Your task to perform on an android device: Do I have any events tomorrow? Image 0: 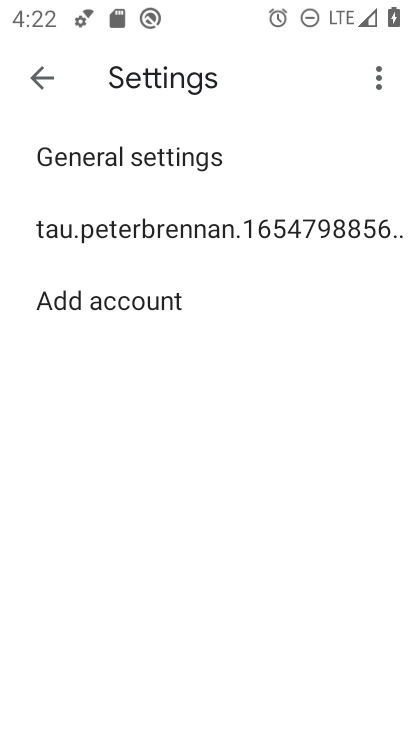
Step 0: press back button
Your task to perform on an android device: Do I have any events tomorrow? Image 1: 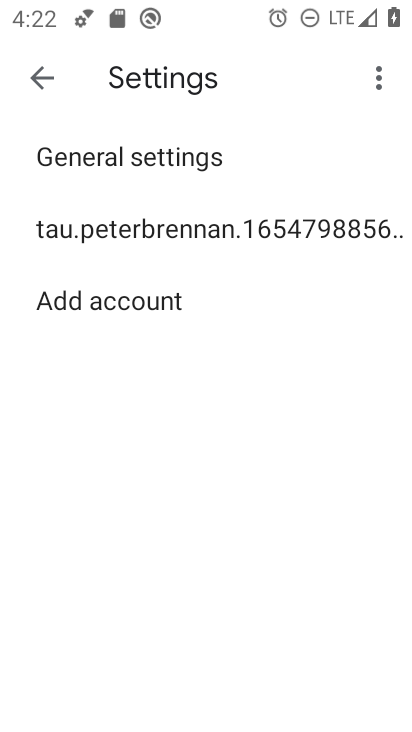
Step 1: press back button
Your task to perform on an android device: Do I have any events tomorrow? Image 2: 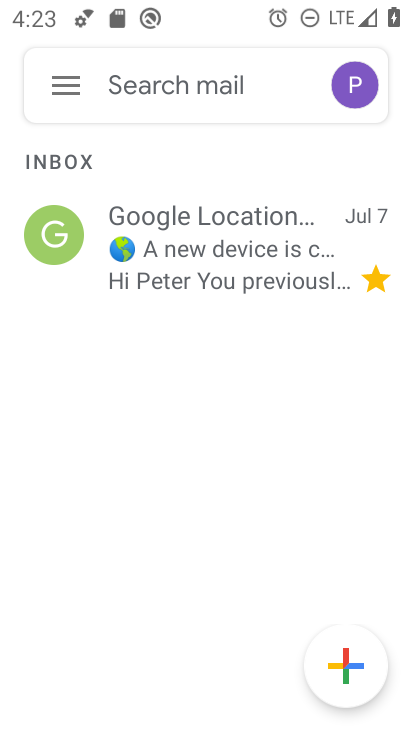
Step 2: press back button
Your task to perform on an android device: Do I have any events tomorrow? Image 3: 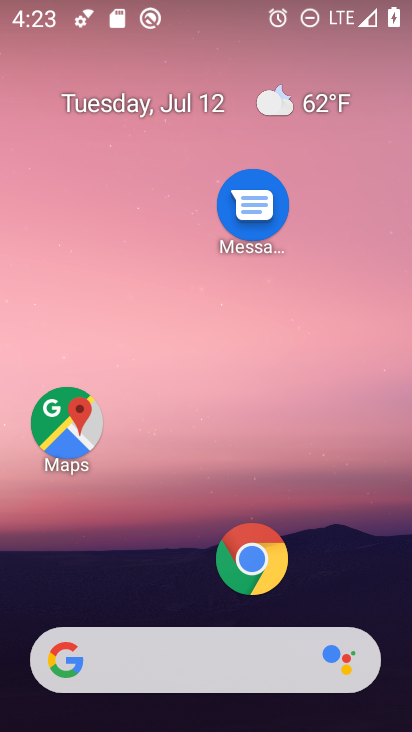
Step 3: drag from (144, 604) to (220, 19)
Your task to perform on an android device: Do I have any events tomorrow? Image 4: 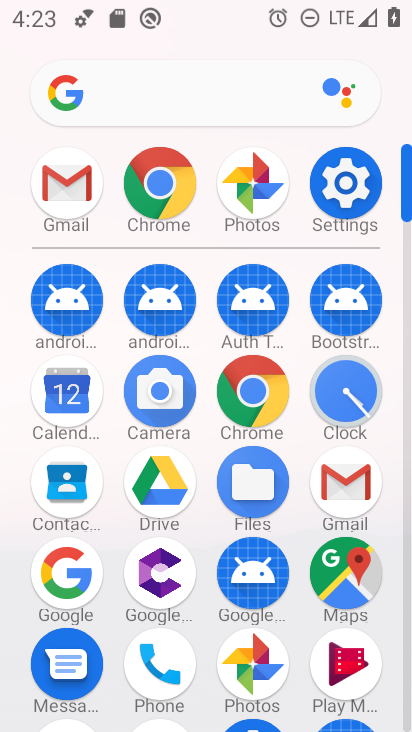
Step 4: click (56, 383)
Your task to perform on an android device: Do I have any events tomorrow? Image 5: 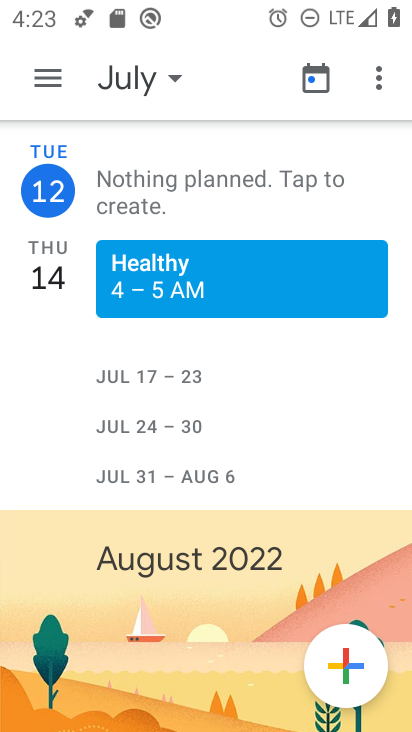
Step 5: task complete